Your task to perform on an android device: toggle priority inbox in the gmail app Image 0: 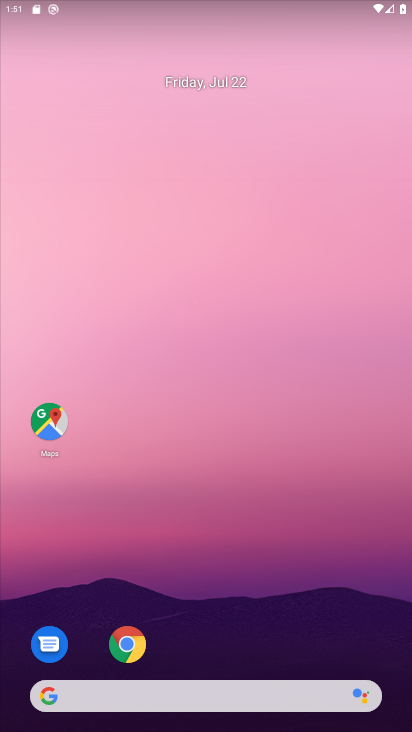
Step 0: drag from (297, 602) to (316, 27)
Your task to perform on an android device: toggle priority inbox in the gmail app Image 1: 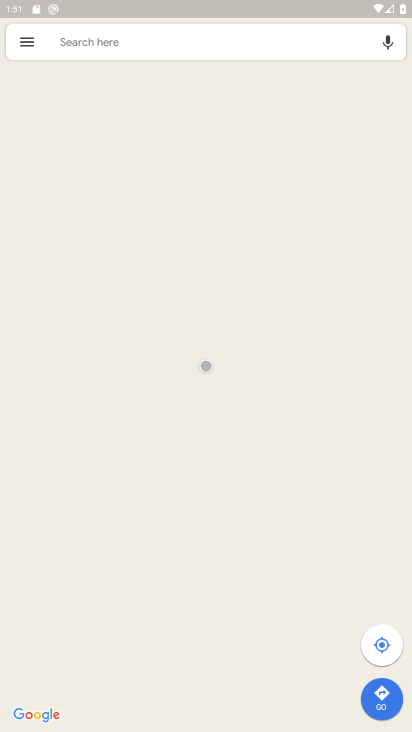
Step 1: press home button
Your task to perform on an android device: toggle priority inbox in the gmail app Image 2: 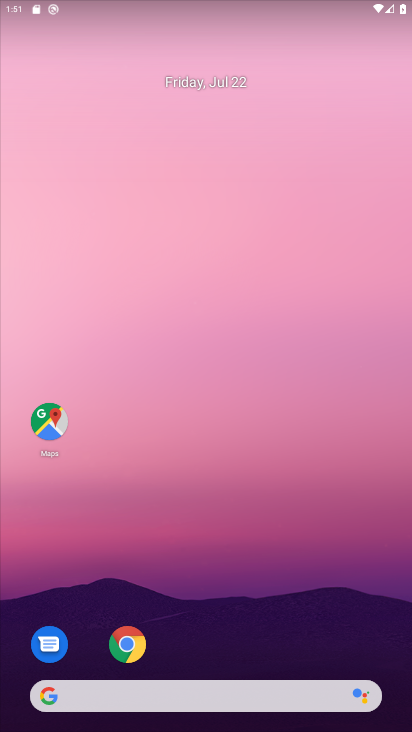
Step 2: drag from (293, 598) to (292, 232)
Your task to perform on an android device: toggle priority inbox in the gmail app Image 3: 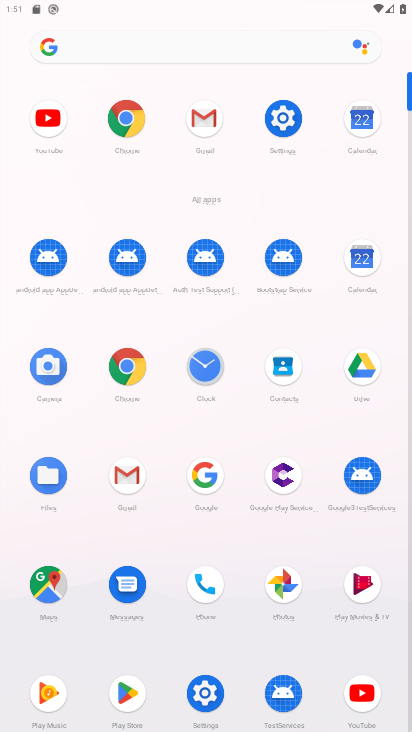
Step 3: click (208, 127)
Your task to perform on an android device: toggle priority inbox in the gmail app Image 4: 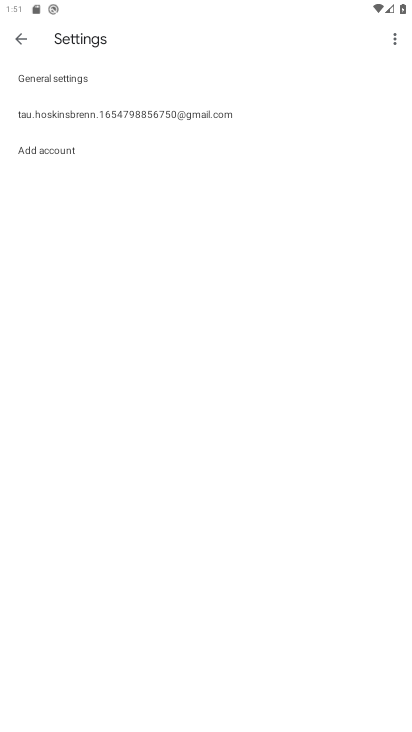
Step 4: click (111, 118)
Your task to perform on an android device: toggle priority inbox in the gmail app Image 5: 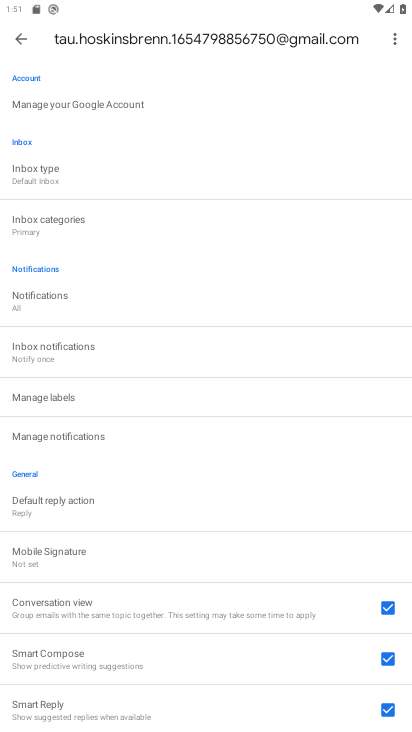
Step 5: click (66, 183)
Your task to perform on an android device: toggle priority inbox in the gmail app Image 6: 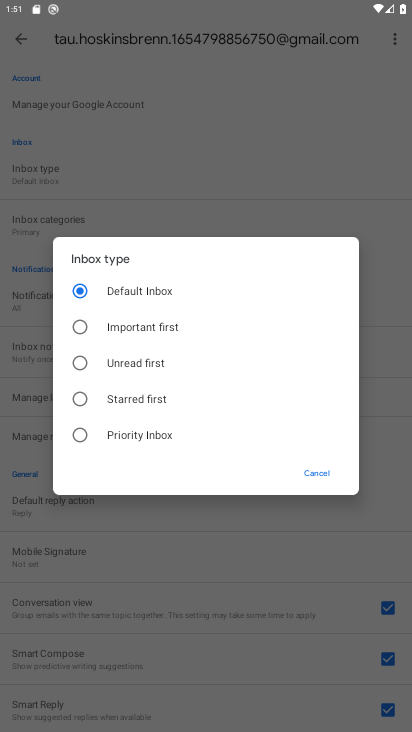
Step 6: click (111, 434)
Your task to perform on an android device: toggle priority inbox in the gmail app Image 7: 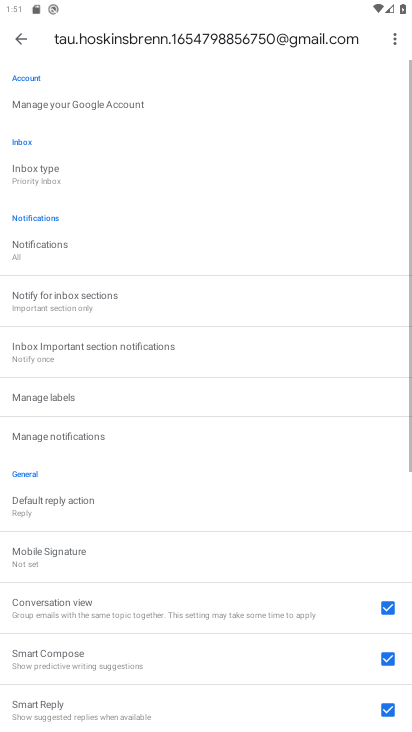
Step 7: task complete